Your task to perform on an android device: check the backup settings in the google photos Image 0: 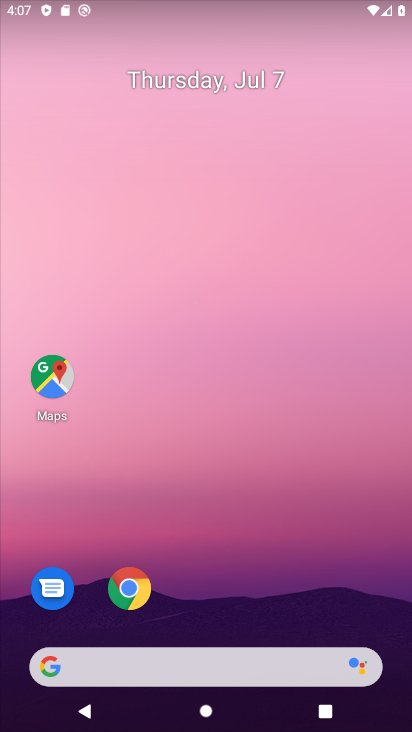
Step 0: drag from (261, 582) to (248, 0)
Your task to perform on an android device: check the backup settings in the google photos Image 1: 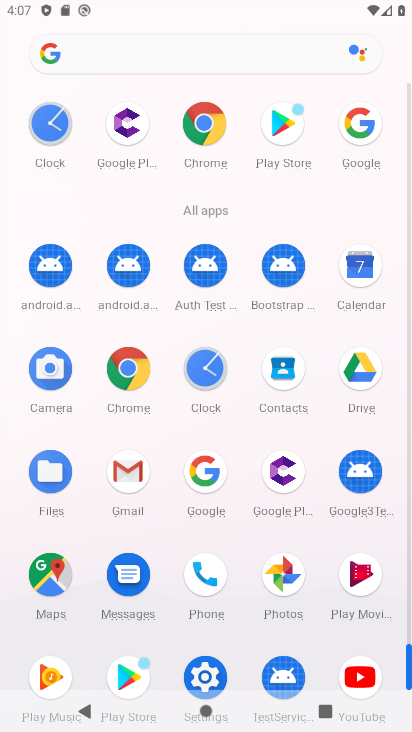
Step 1: click (293, 573)
Your task to perform on an android device: check the backup settings in the google photos Image 2: 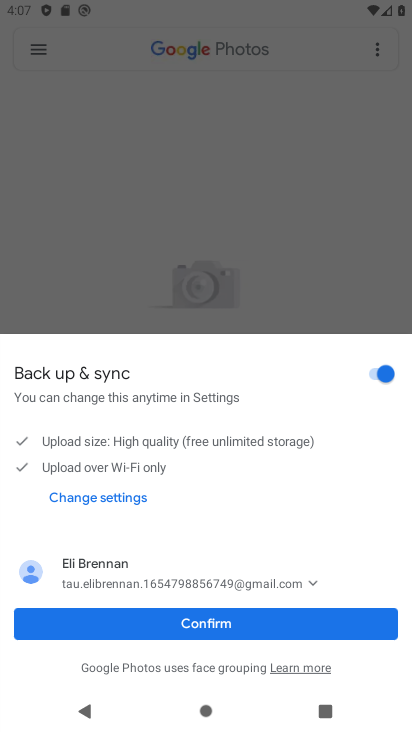
Step 2: click (211, 613)
Your task to perform on an android device: check the backup settings in the google photos Image 3: 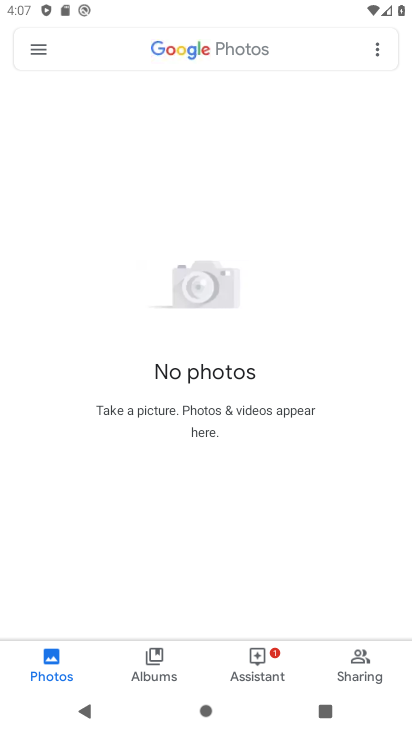
Step 3: click (36, 47)
Your task to perform on an android device: check the backup settings in the google photos Image 4: 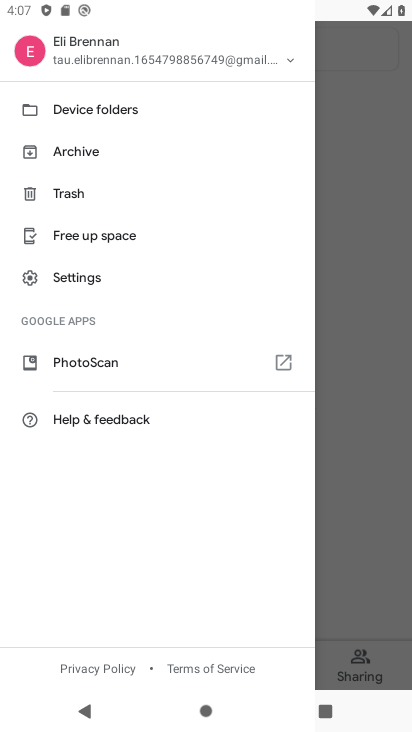
Step 4: click (97, 272)
Your task to perform on an android device: check the backup settings in the google photos Image 5: 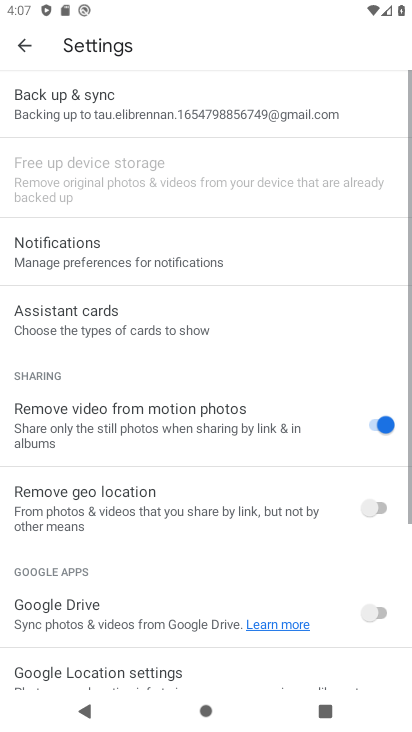
Step 5: click (274, 103)
Your task to perform on an android device: check the backup settings in the google photos Image 6: 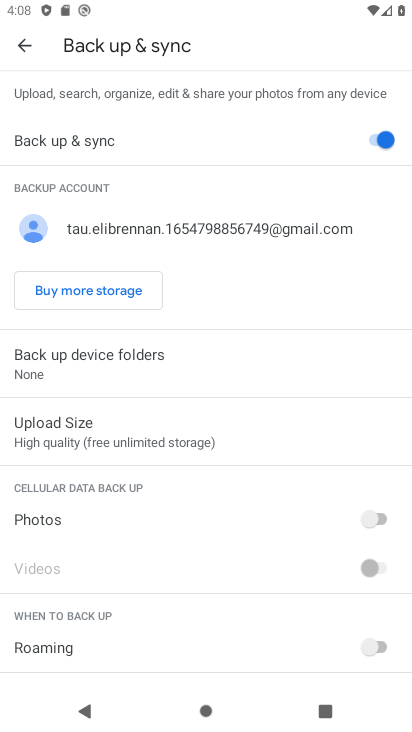
Step 6: task complete